Your task to perform on an android device: Search for Mexican restaurants on Maps Image 0: 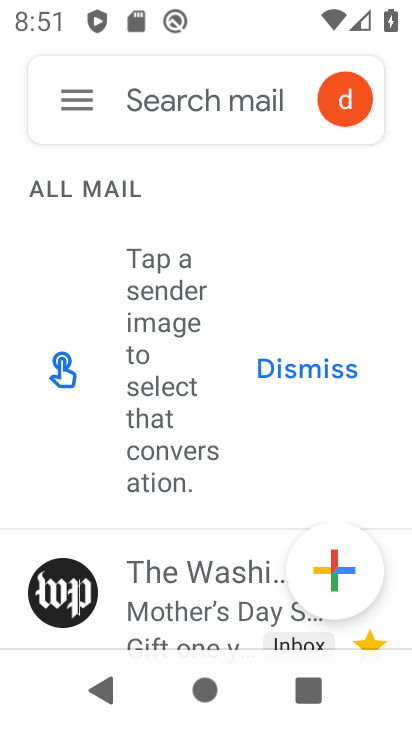
Step 0: press home button
Your task to perform on an android device: Search for Mexican restaurants on Maps Image 1: 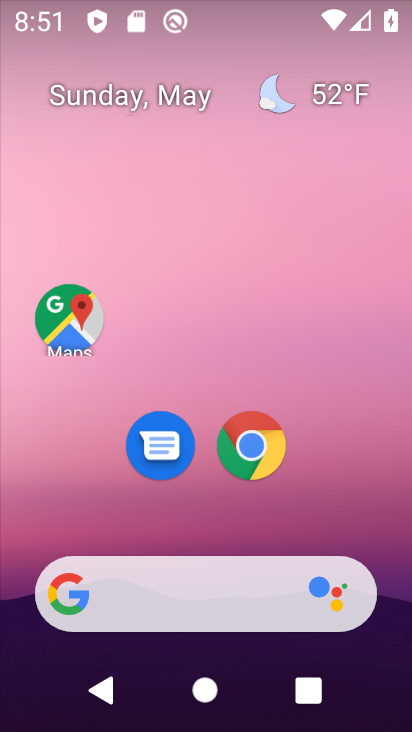
Step 1: click (66, 326)
Your task to perform on an android device: Search for Mexican restaurants on Maps Image 2: 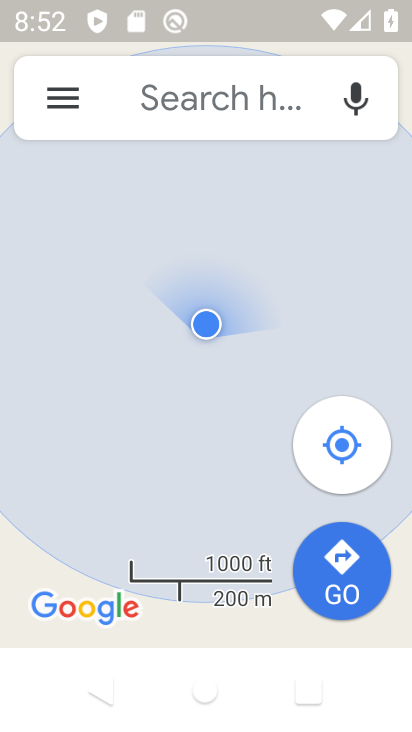
Step 2: click (175, 100)
Your task to perform on an android device: Search for Mexican restaurants on Maps Image 3: 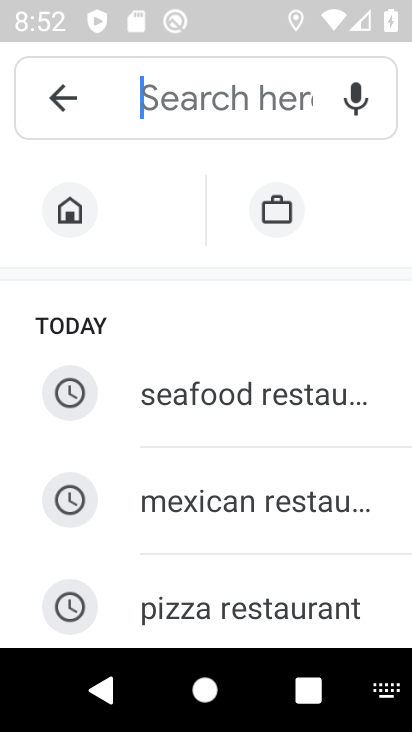
Step 3: click (228, 510)
Your task to perform on an android device: Search for Mexican restaurants on Maps Image 4: 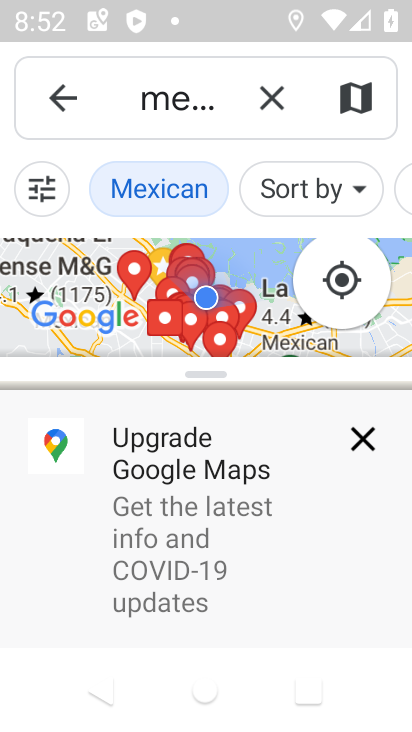
Step 4: task complete